Your task to perform on an android device: Turn on the flashlight Image 0: 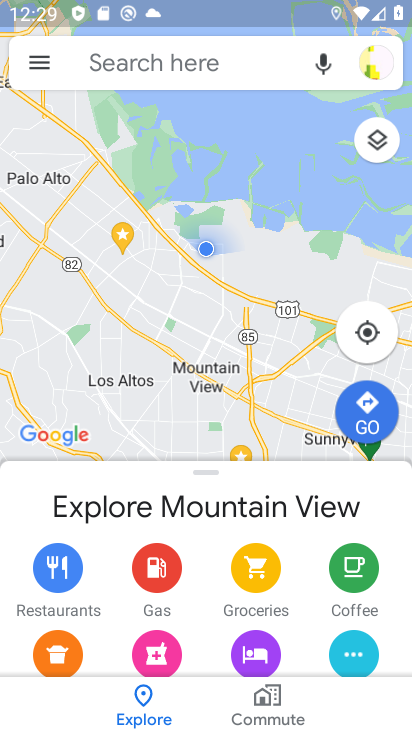
Step 0: press home button
Your task to perform on an android device: Turn on the flashlight Image 1: 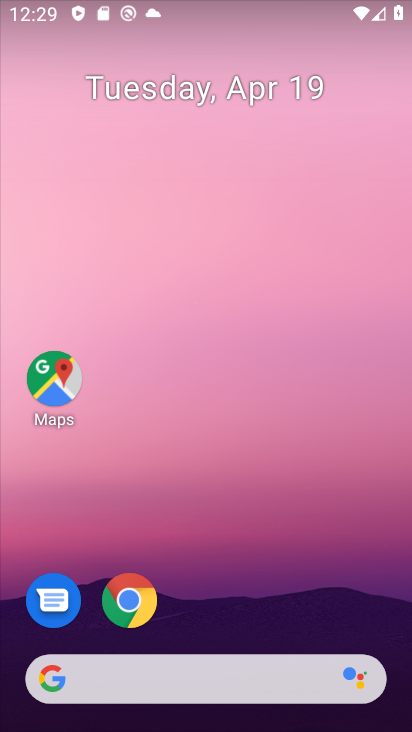
Step 1: drag from (185, 641) to (174, 52)
Your task to perform on an android device: Turn on the flashlight Image 2: 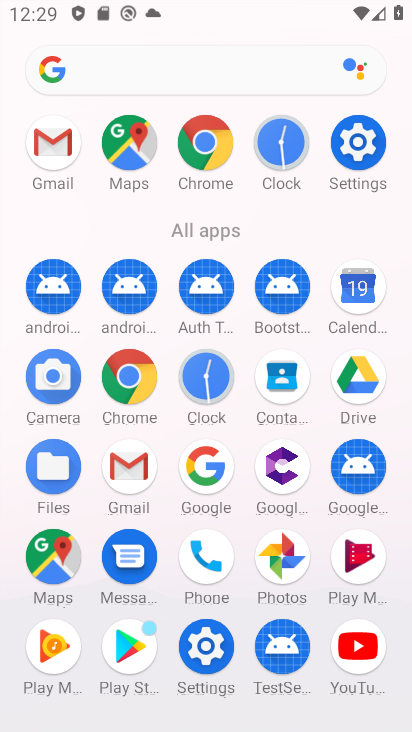
Step 2: click (349, 159)
Your task to perform on an android device: Turn on the flashlight Image 3: 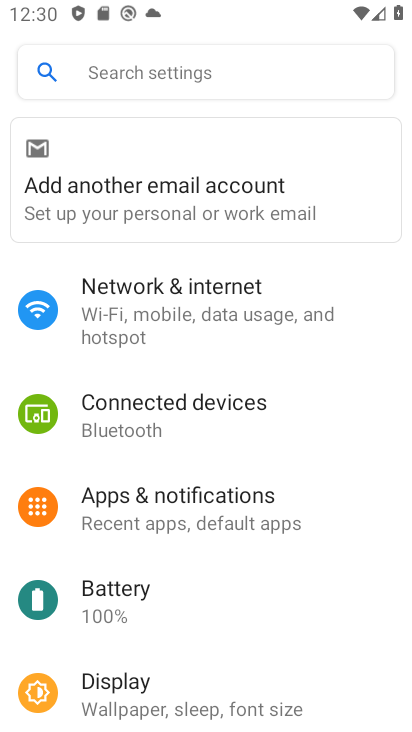
Step 3: task complete